Your task to perform on an android device: Go to Reddit.com Image 0: 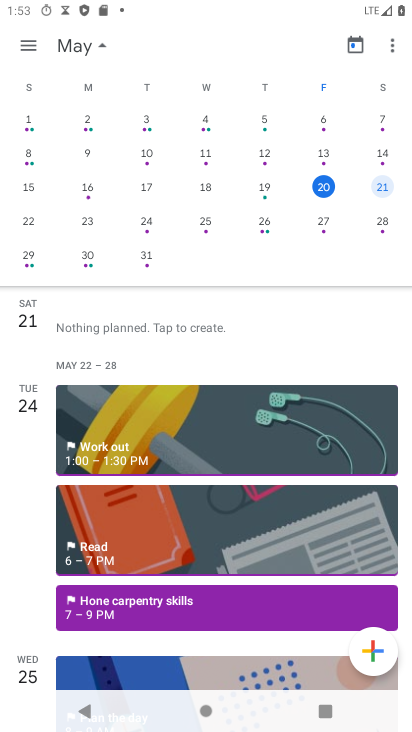
Step 0: press home button
Your task to perform on an android device: Go to Reddit.com Image 1: 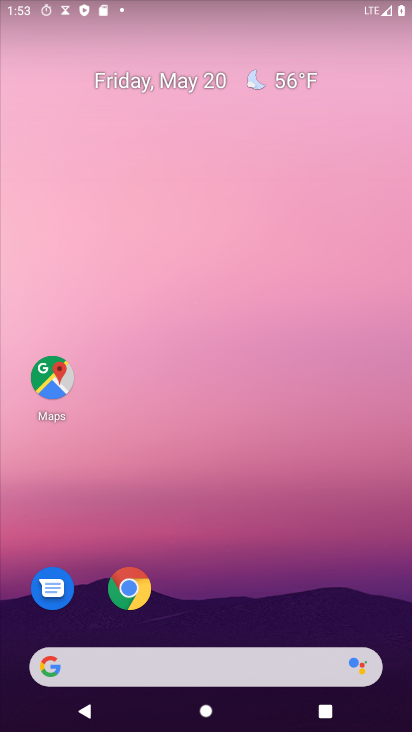
Step 1: click (114, 583)
Your task to perform on an android device: Go to Reddit.com Image 2: 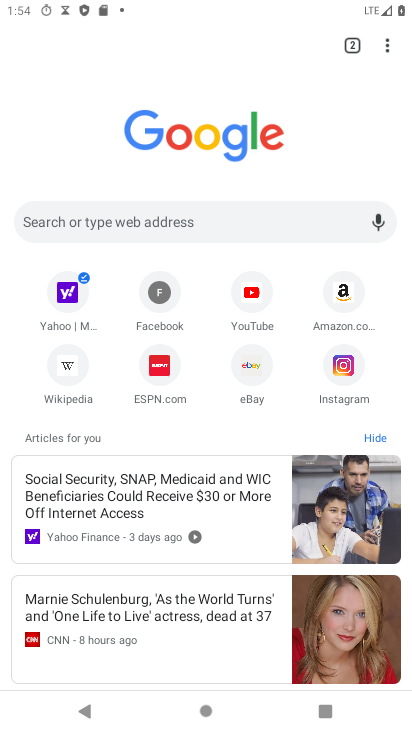
Step 2: click (173, 221)
Your task to perform on an android device: Go to Reddit.com Image 3: 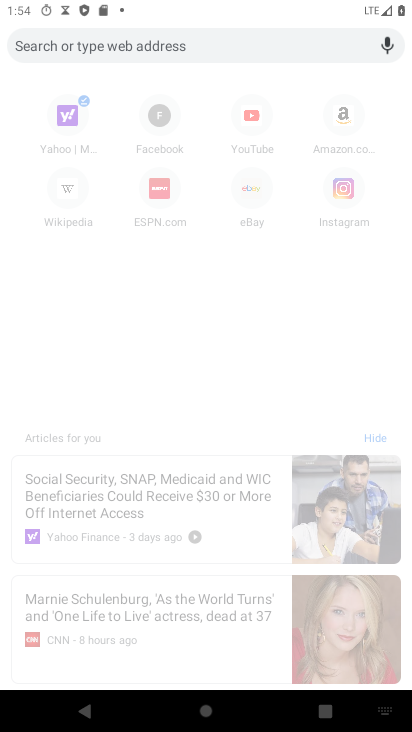
Step 3: type "Reddit.com"
Your task to perform on an android device: Go to Reddit.com Image 4: 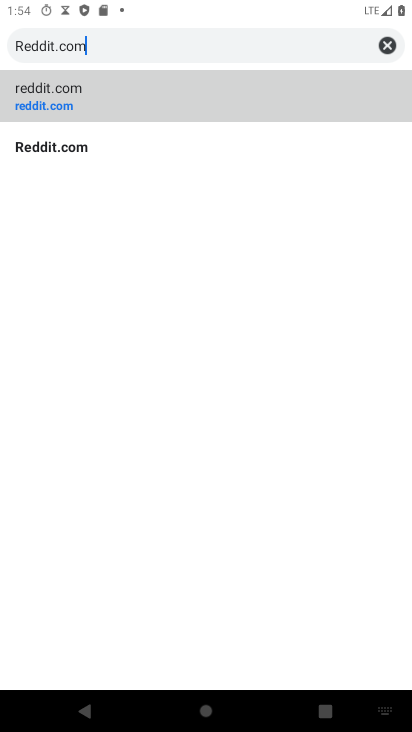
Step 4: type ""
Your task to perform on an android device: Go to Reddit.com Image 5: 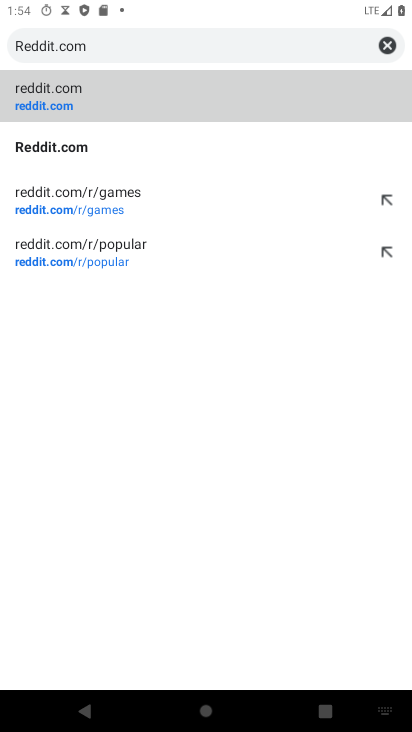
Step 5: click (127, 135)
Your task to perform on an android device: Go to Reddit.com Image 6: 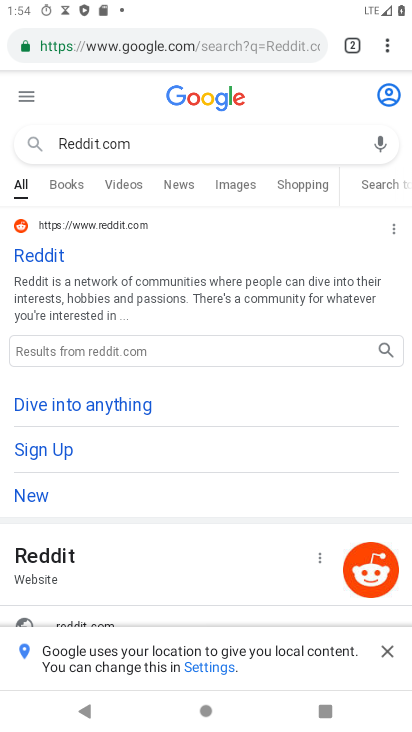
Step 6: click (23, 254)
Your task to perform on an android device: Go to Reddit.com Image 7: 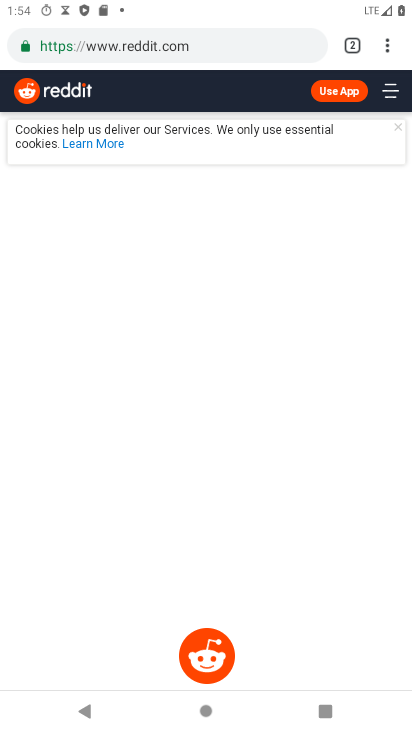
Step 7: task complete